Your task to perform on an android device: install app "Spotify: Music and Podcasts" Image 0: 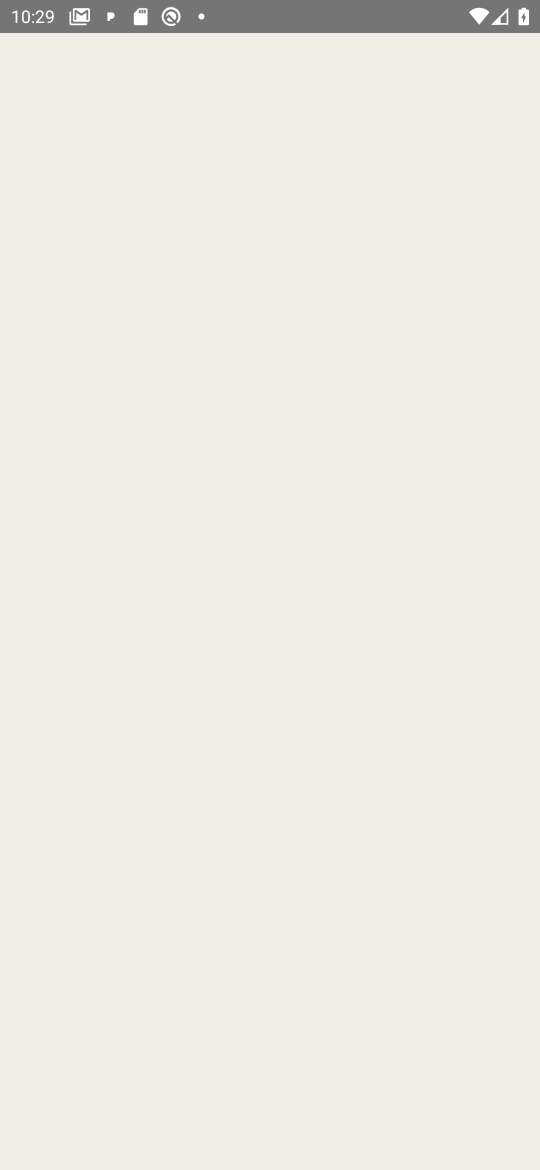
Step 0: press home button
Your task to perform on an android device: install app "Spotify: Music and Podcasts" Image 1: 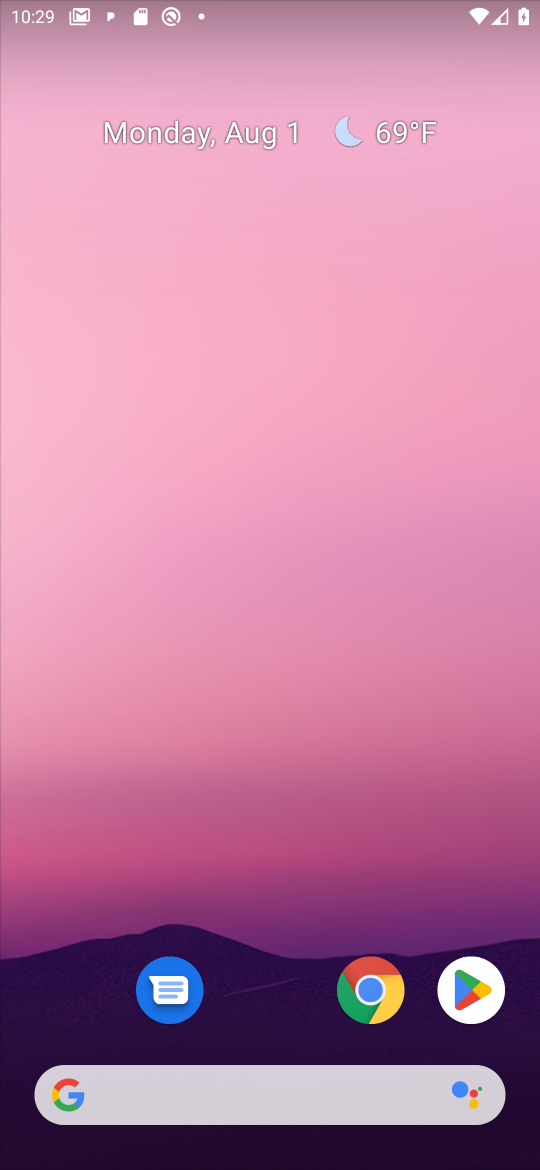
Step 1: click (449, 967)
Your task to perform on an android device: install app "Spotify: Music and Podcasts" Image 2: 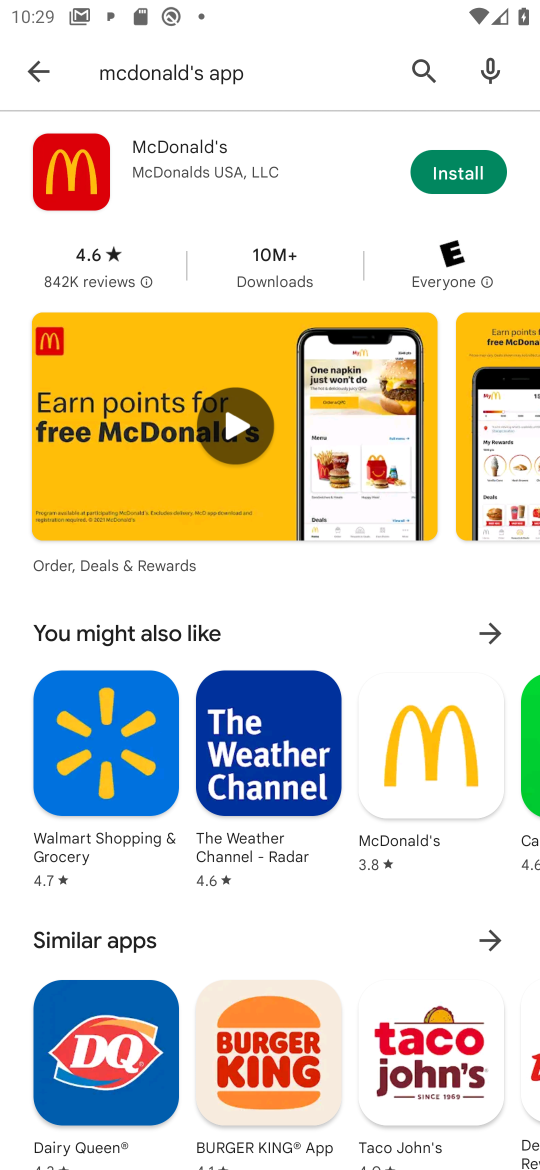
Step 2: click (415, 81)
Your task to perform on an android device: install app "Spotify: Music and Podcasts" Image 3: 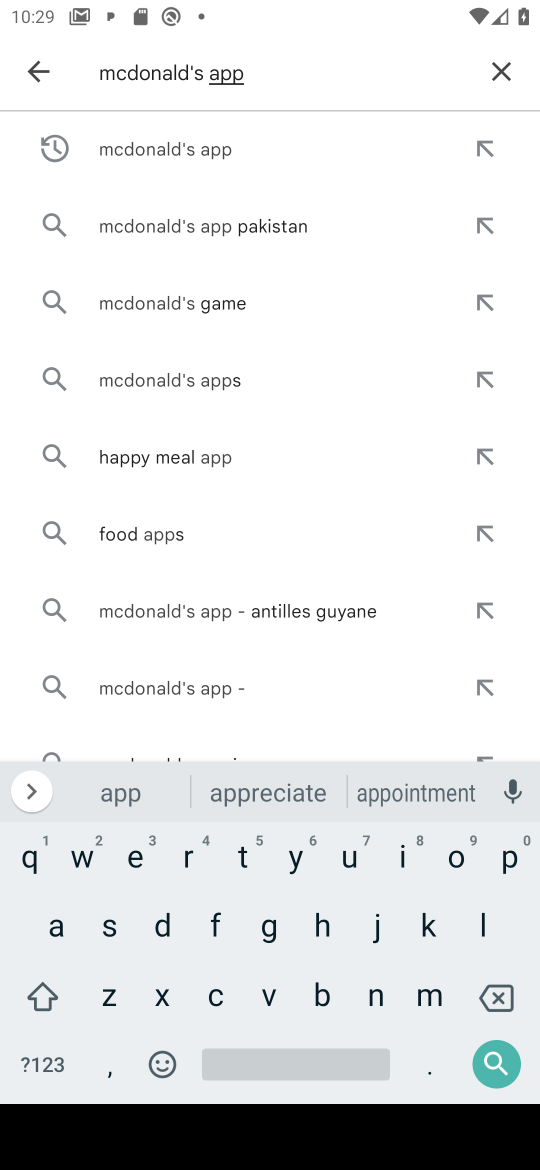
Step 3: click (502, 69)
Your task to perform on an android device: install app "Spotify: Music and Podcasts" Image 4: 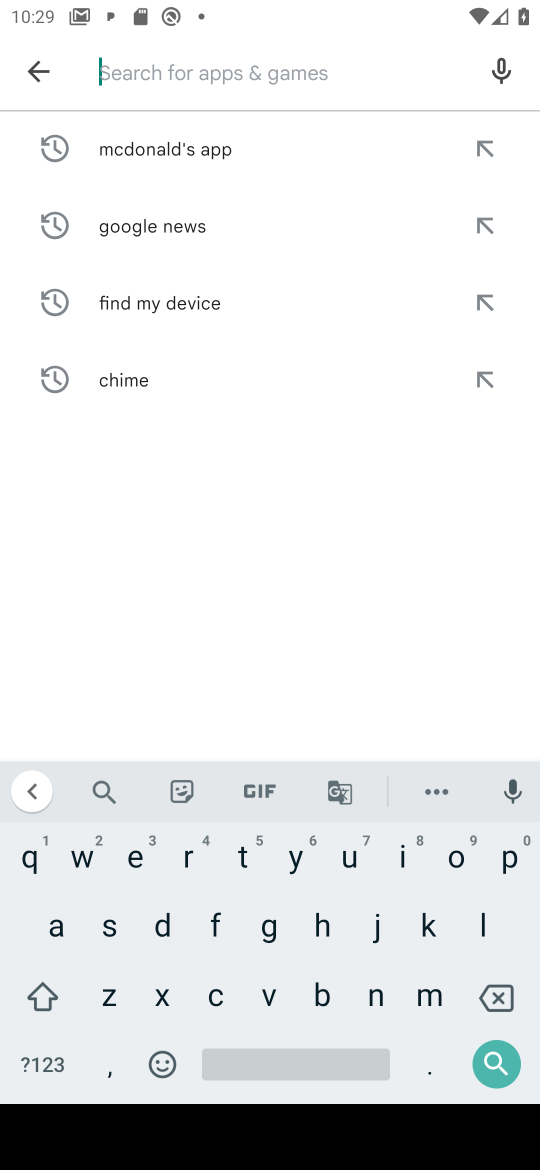
Step 4: click (111, 927)
Your task to perform on an android device: install app "Spotify: Music and Podcasts" Image 5: 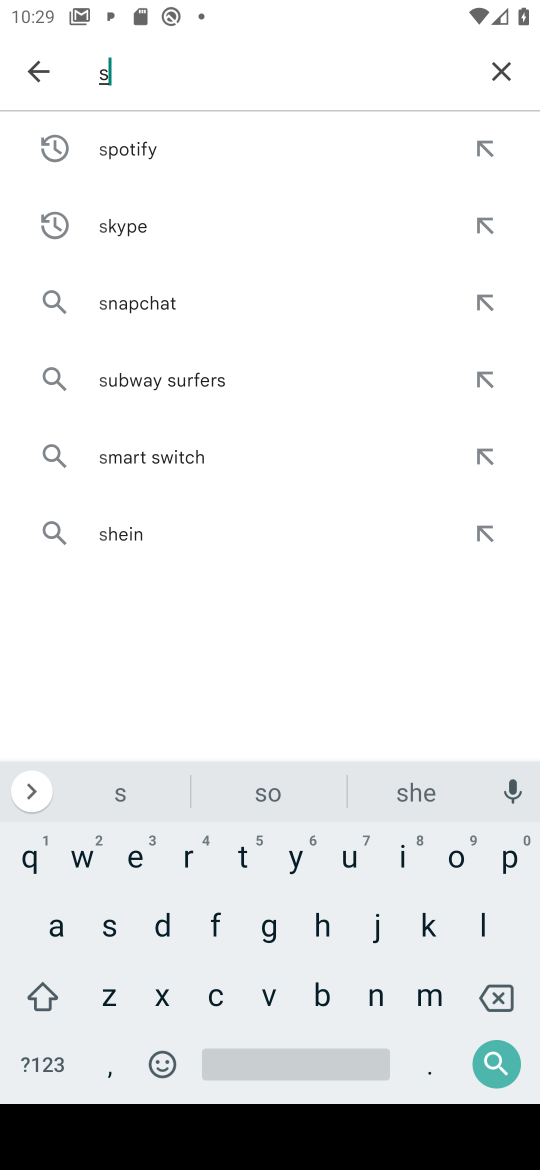
Step 5: click (501, 859)
Your task to perform on an android device: install app "Spotify: Music and Podcasts" Image 6: 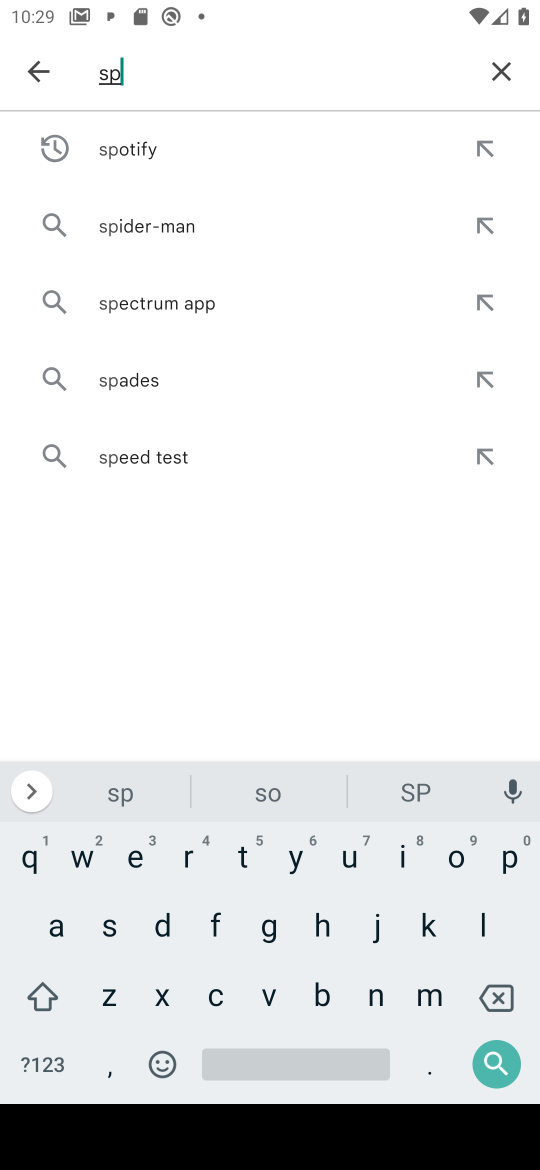
Step 6: click (173, 132)
Your task to perform on an android device: install app "Spotify: Music and Podcasts" Image 7: 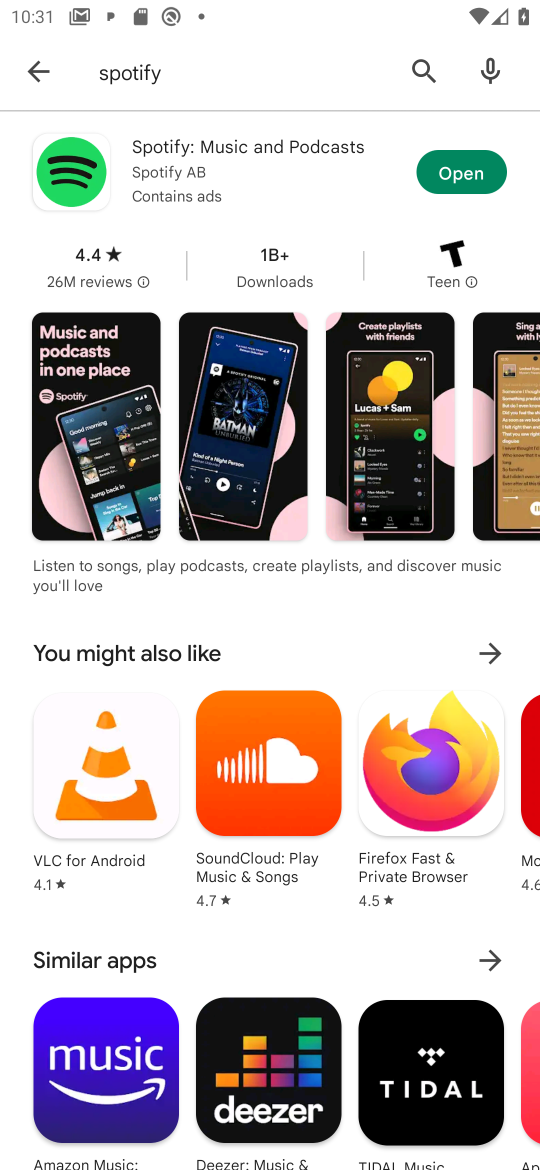
Step 7: task complete